Your task to perform on an android device: refresh tabs in the chrome app Image 0: 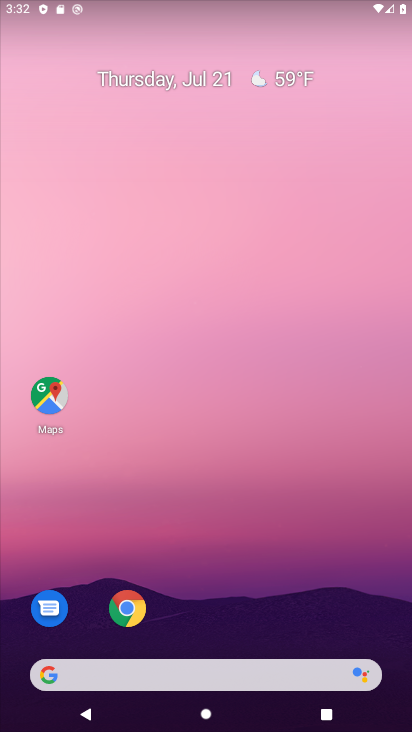
Step 0: drag from (159, 674) to (260, 86)
Your task to perform on an android device: refresh tabs in the chrome app Image 1: 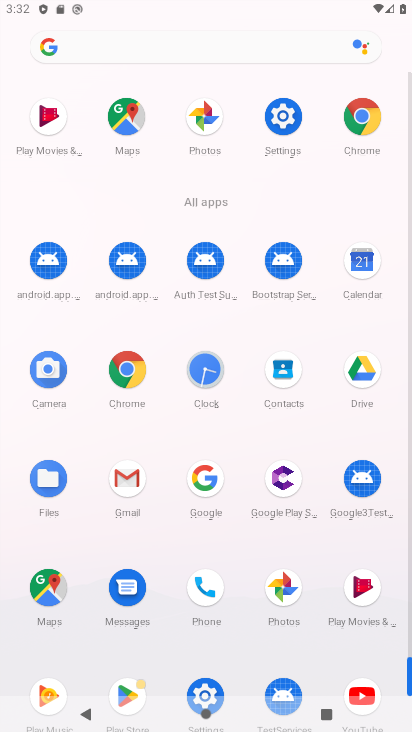
Step 1: click (144, 372)
Your task to perform on an android device: refresh tabs in the chrome app Image 2: 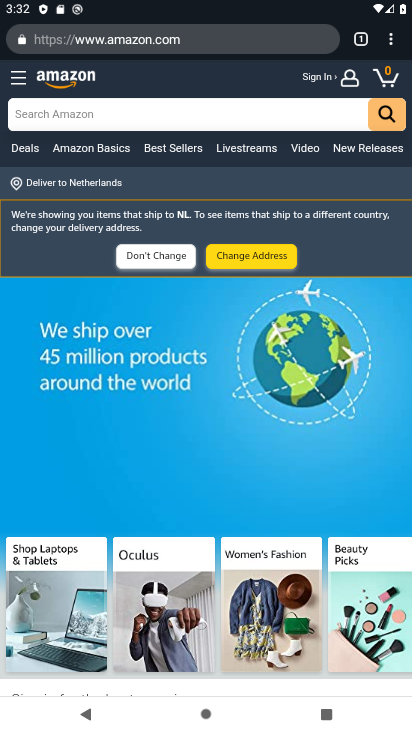
Step 2: click (396, 42)
Your task to perform on an android device: refresh tabs in the chrome app Image 3: 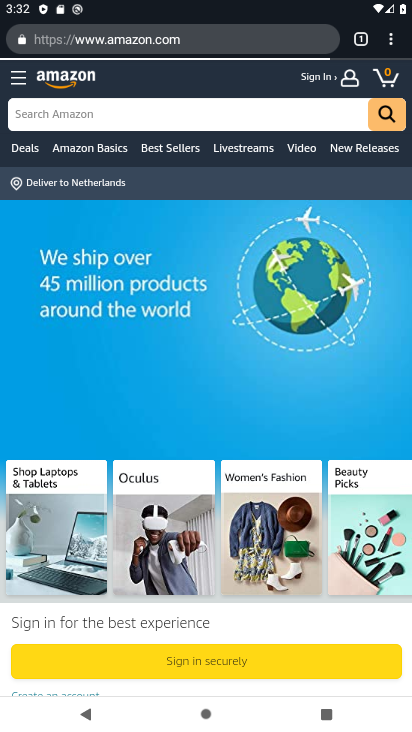
Step 3: task complete